Your task to perform on an android device: What's the weather? Image 0: 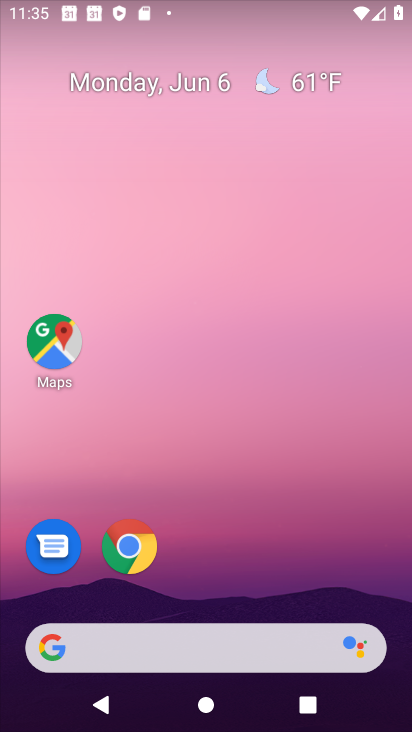
Step 0: click (258, 83)
Your task to perform on an android device: What's the weather? Image 1: 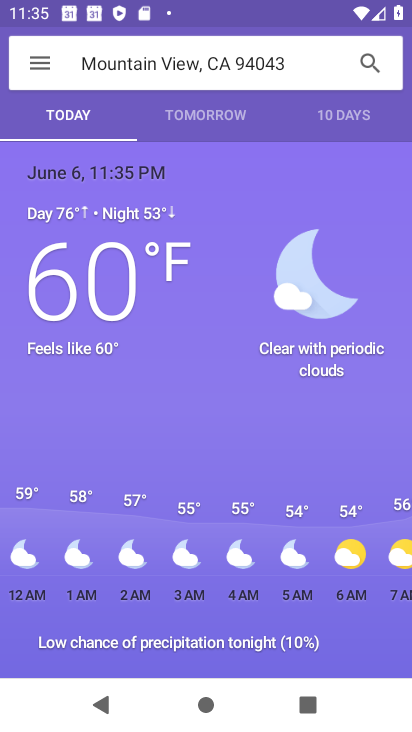
Step 1: task complete